Your task to perform on an android device: Open Chrome and go to the settings page Image 0: 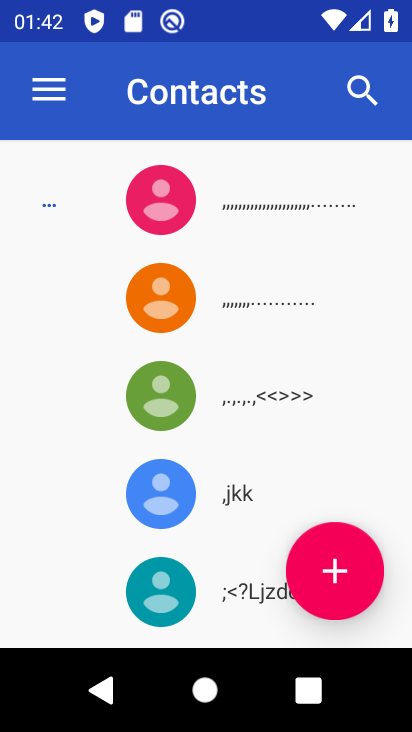
Step 0: press home button
Your task to perform on an android device: Open Chrome and go to the settings page Image 1: 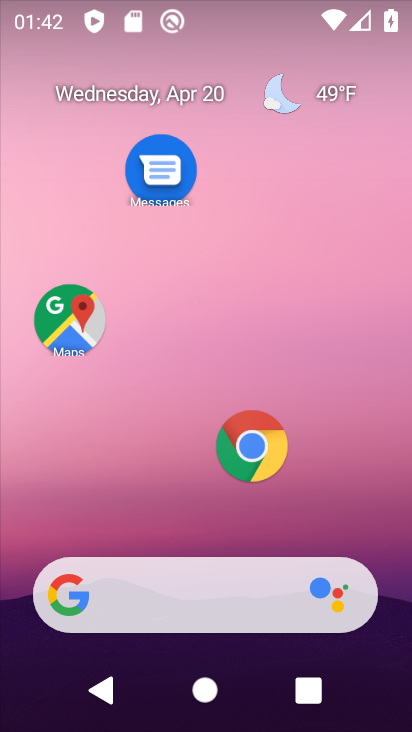
Step 1: drag from (206, 522) to (227, 72)
Your task to perform on an android device: Open Chrome and go to the settings page Image 2: 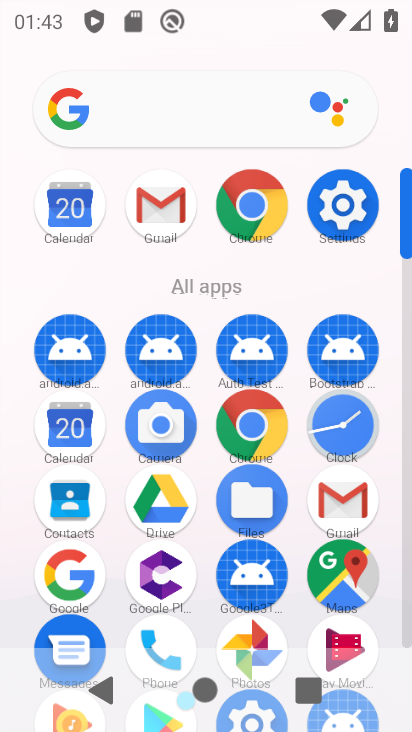
Step 2: drag from (208, 603) to (235, 210)
Your task to perform on an android device: Open Chrome and go to the settings page Image 3: 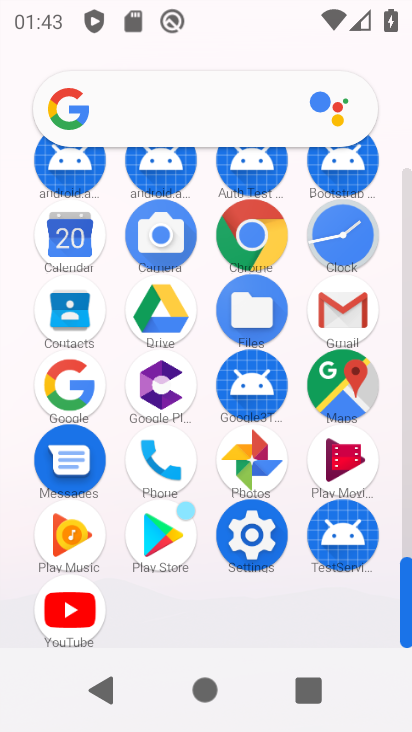
Step 3: click (249, 530)
Your task to perform on an android device: Open Chrome and go to the settings page Image 4: 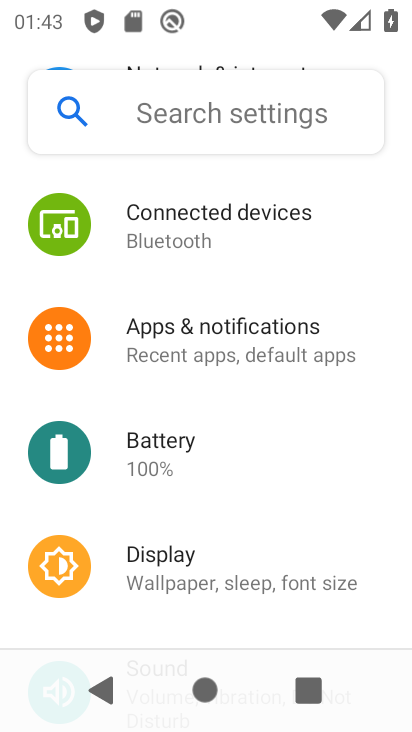
Step 4: press home button
Your task to perform on an android device: Open Chrome and go to the settings page Image 5: 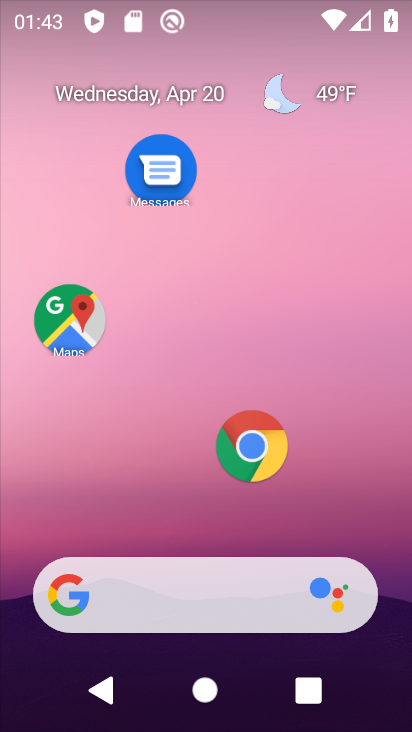
Step 5: click (249, 452)
Your task to perform on an android device: Open Chrome and go to the settings page Image 6: 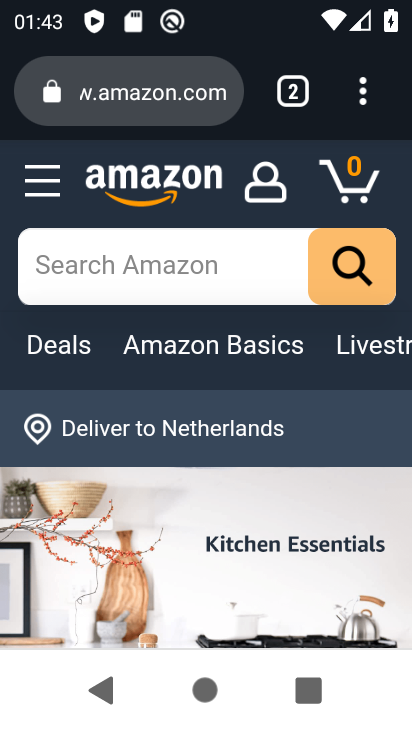
Step 6: click (367, 84)
Your task to perform on an android device: Open Chrome and go to the settings page Image 7: 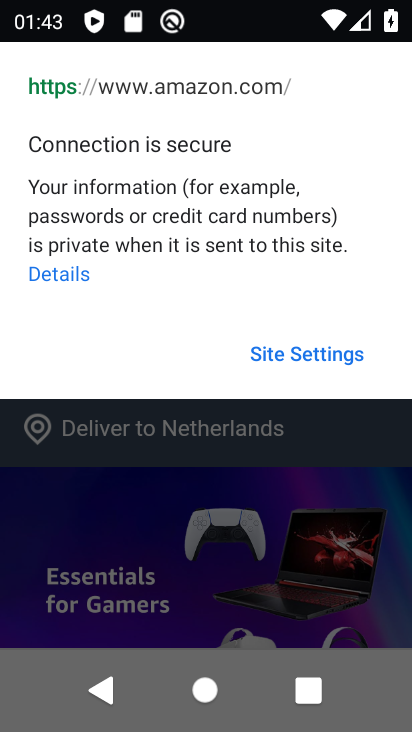
Step 7: click (276, 494)
Your task to perform on an android device: Open Chrome and go to the settings page Image 8: 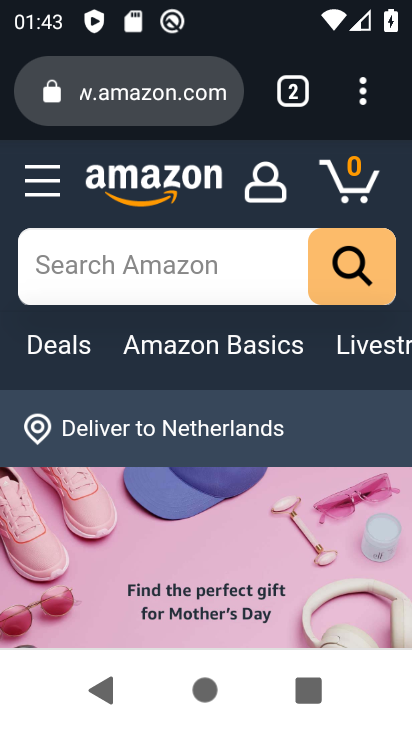
Step 8: click (362, 100)
Your task to perform on an android device: Open Chrome and go to the settings page Image 9: 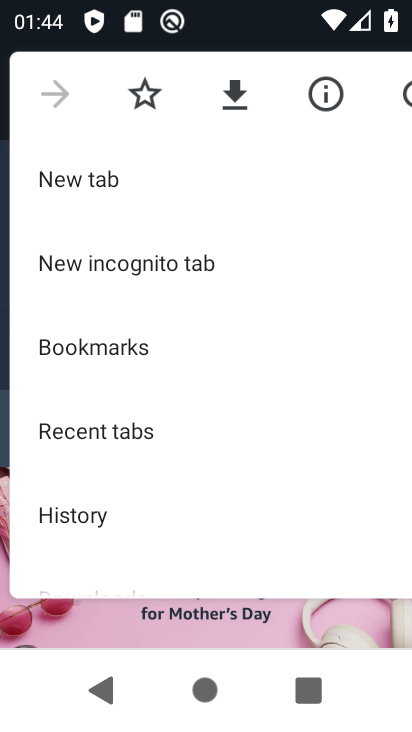
Step 9: drag from (201, 486) to (241, 46)
Your task to perform on an android device: Open Chrome and go to the settings page Image 10: 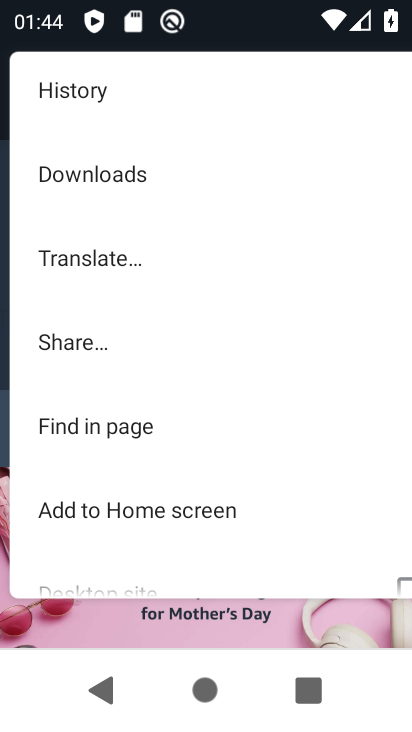
Step 10: drag from (131, 532) to (193, 117)
Your task to perform on an android device: Open Chrome and go to the settings page Image 11: 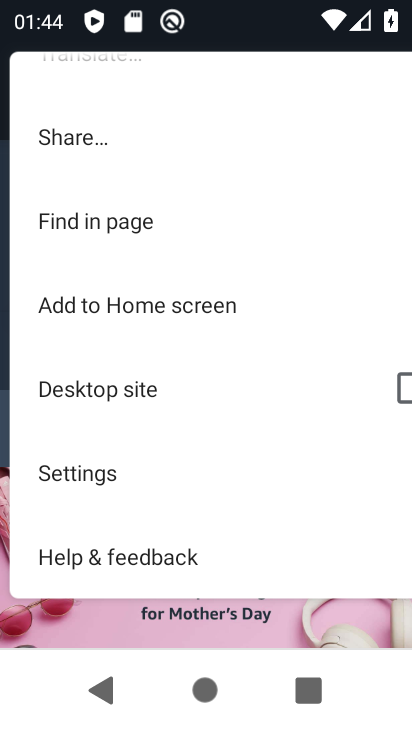
Step 11: click (123, 468)
Your task to perform on an android device: Open Chrome and go to the settings page Image 12: 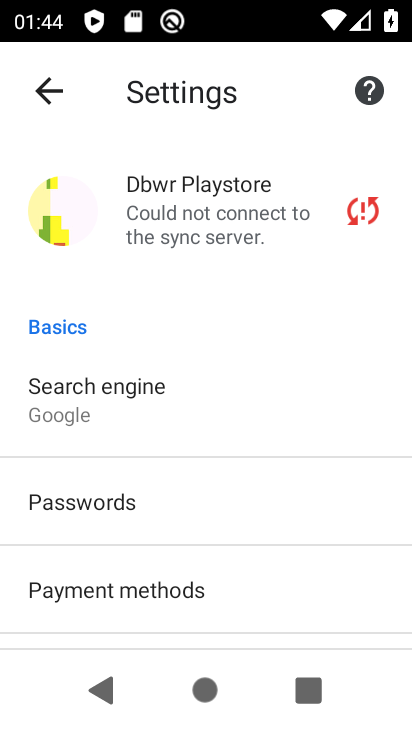
Step 12: task complete